Your task to perform on an android device: read, delete, or share a saved page in the chrome app Image 0: 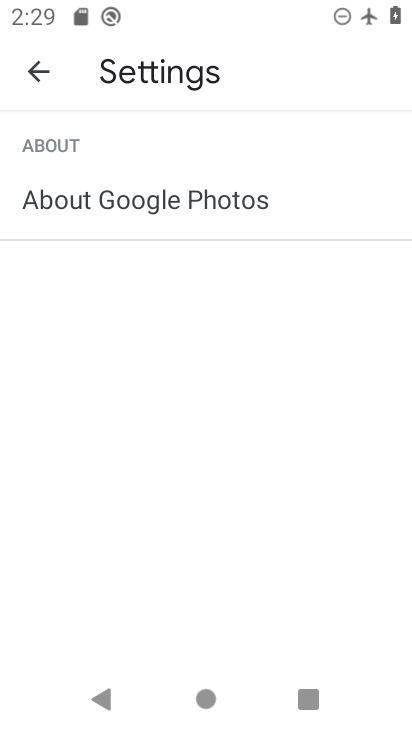
Step 0: task impossible